Your task to perform on an android device: turn on translation in the chrome app Image 0: 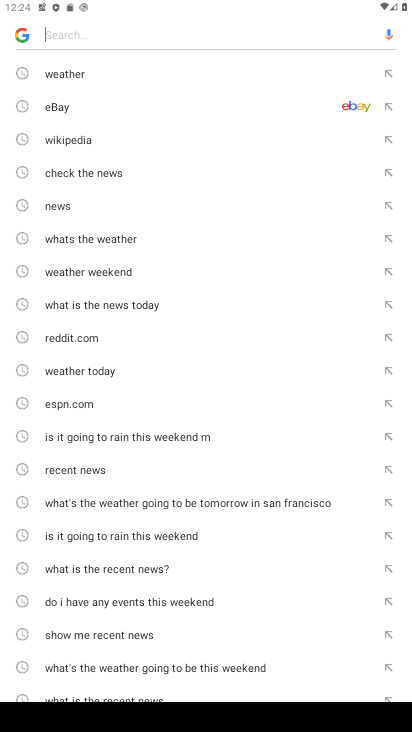
Step 0: press home button
Your task to perform on an android device: turn on translation in the chrome app Image 1: 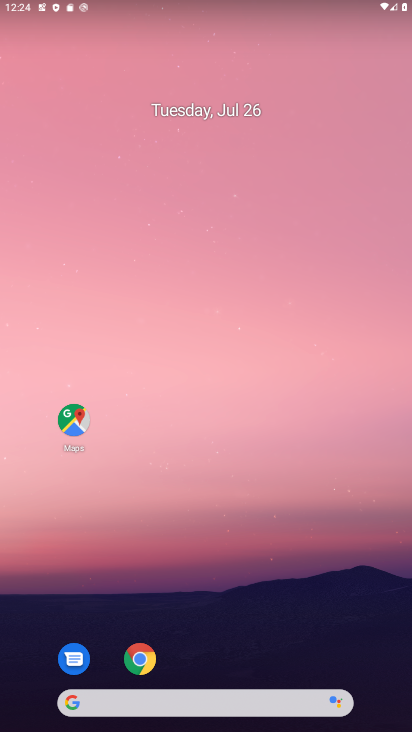
Step 1: drag from (195, 648) to (235, 368)
Your task to perform on an android device: turn on translation in the chrome app Image 2: 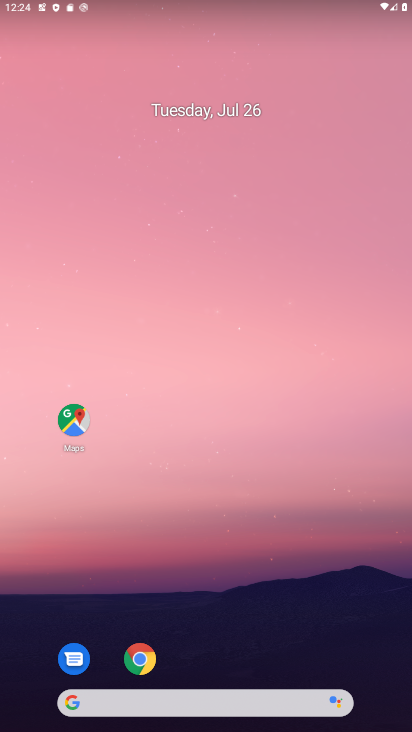
Step 2: drag from (173, 672) to (205, 398)
Your task to perform on an android device: turn on translation in the chrome app Image 3: 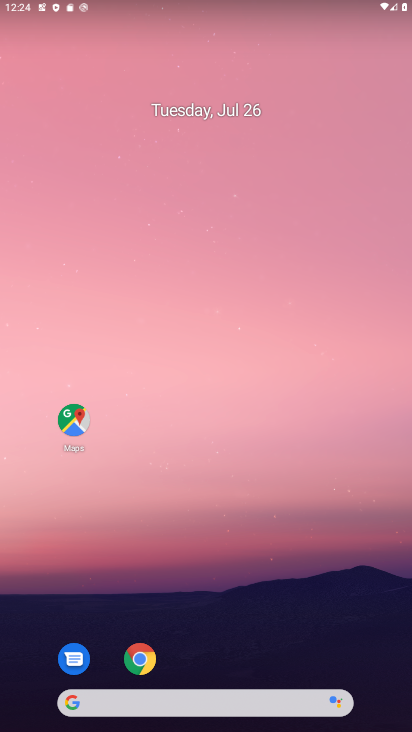
Step 3: drag from (169, 665) to (203, 226)
Your task to perform on an android device: turn on translation in the chrome app Image 4: 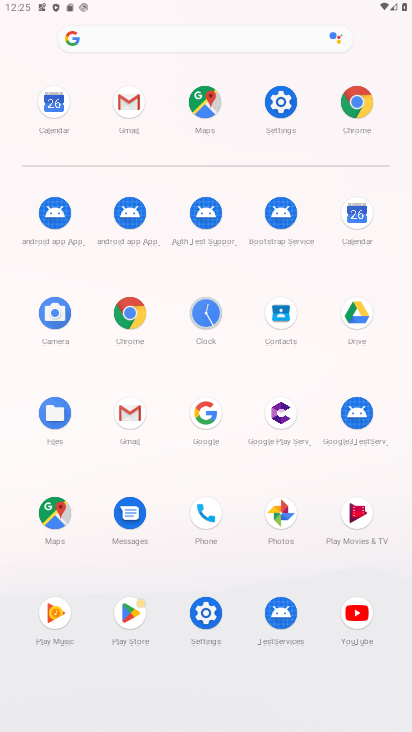
Step 4: click (125, 312)
Your task to perform on an android device: turn on translation in the chrome app Image 5: 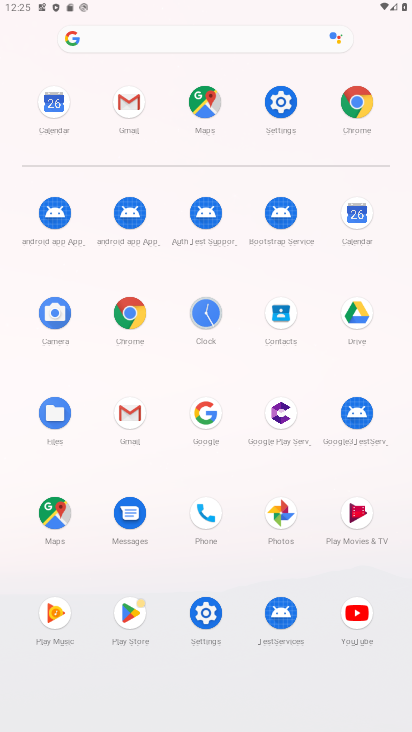
Step 5: click (125, 312)
Your task to perform on an android device: turn on translation in the chrome app Image 6: 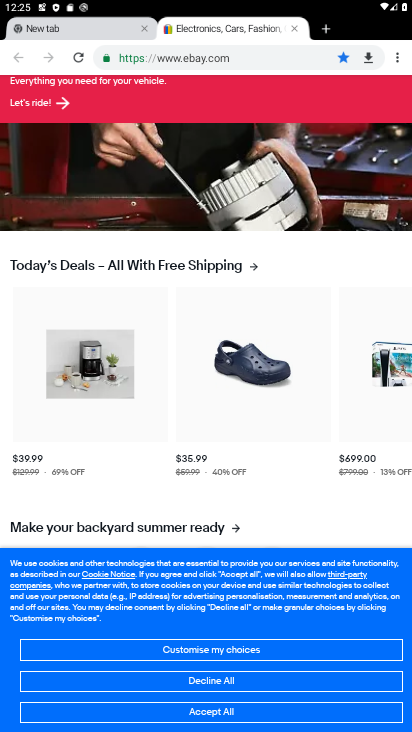
Step 6: drag from (395, 50) to (308, 390)
Your task to perform on an android device: turn on translation in the chrome app Image 7: 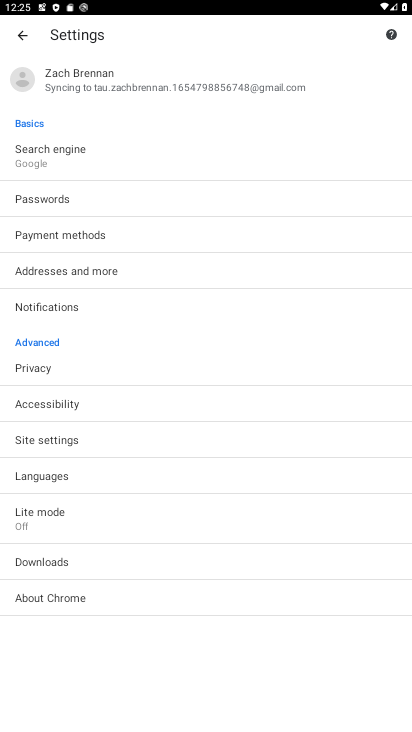
Step 7: click (47, 480)
Your task to perform on an android device: turn on translation in the chrome app Image 8: 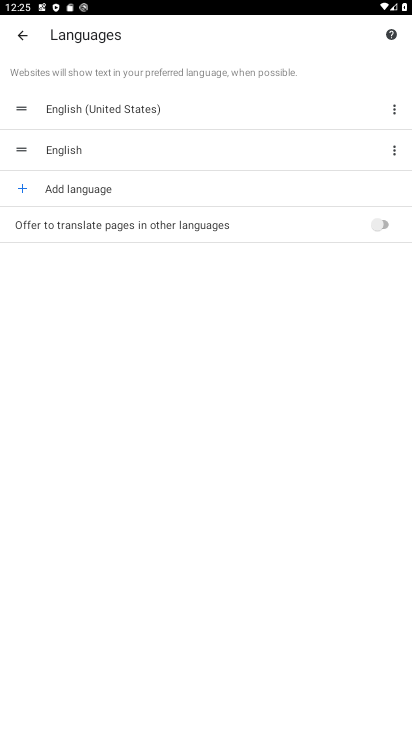
Step 8: click (259, 226)
Your task to perform on an android device: turn on translation in the chrome app Image 9: 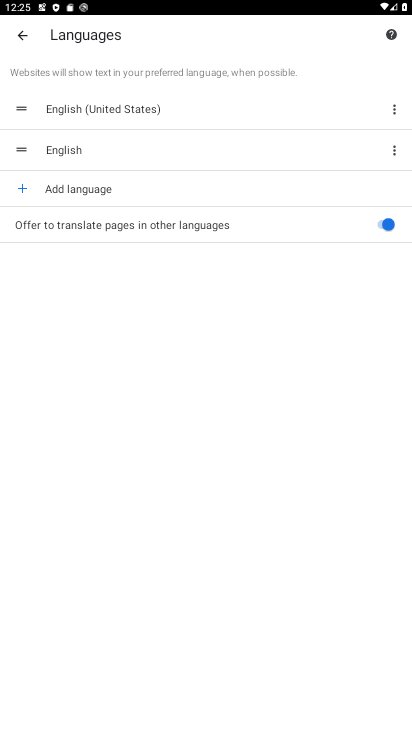
Step 9: task complete